Your task to perform on an android device: toggle notifications settings in the gmail app Image 0: 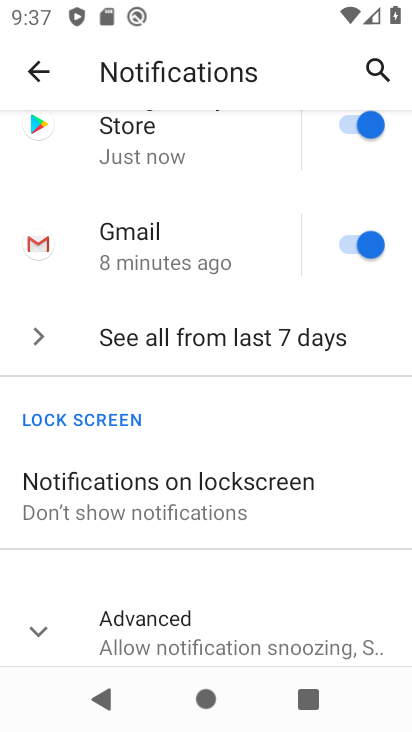
Step 0: press home button
Your task to perform on an android device: toggle notifications settings in the gmail app Image 1: 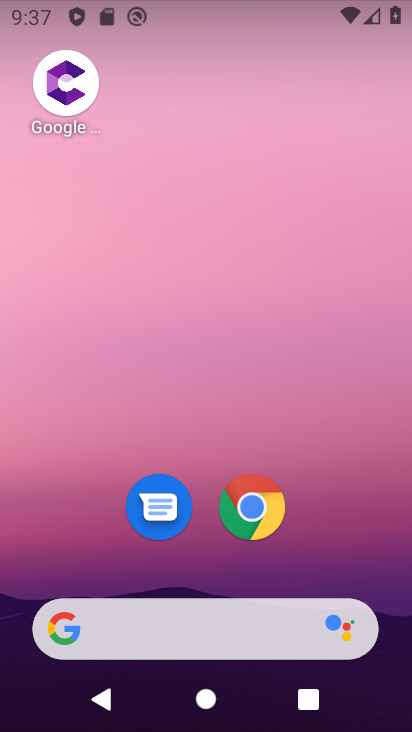
Step 1: drag from (325, 510) to (187, 146)
Your task to perform on an android device: toggle notifications settings in the gmail app Image 2: 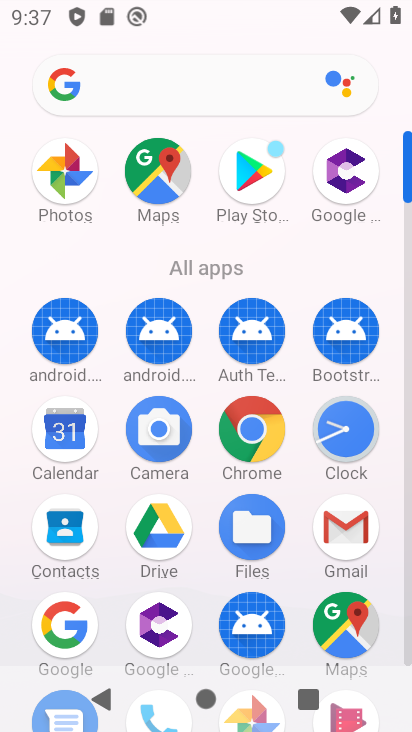
Step 2: click (337, 518)
Your task to perform on an android device: toggle notifications settings in the gmail app Image 3: 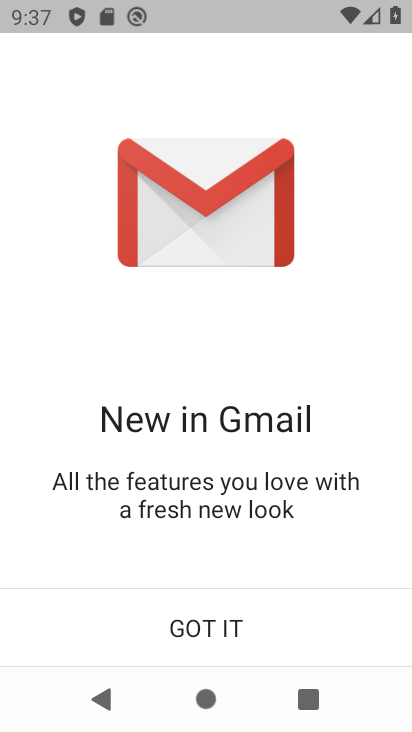
Step 3: click (198, 625)
Your task to perform on an android device: toggle notifications settings in the gmail app Image 4: 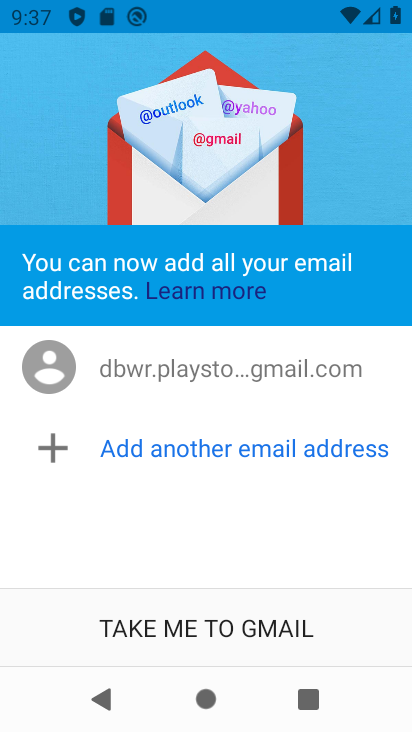
Step 4: click (198, 625)
Your task to perform on an android device: toggle notifications settings in the gmail app Image 5: 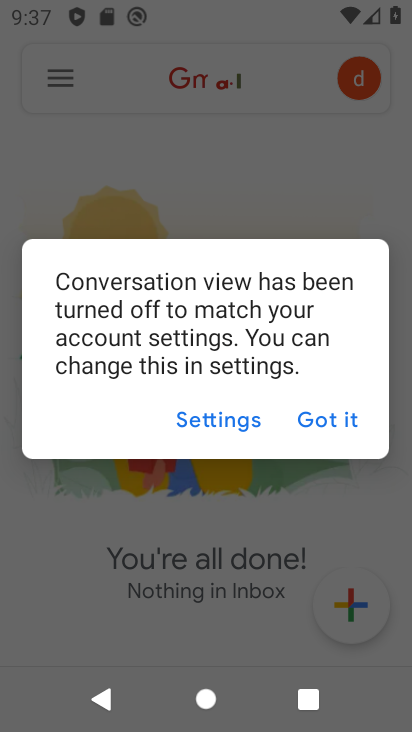
Step 5: click (336, 422)
Your task to perform on an android device: toggle notifications settings in the gmail app Image 6: 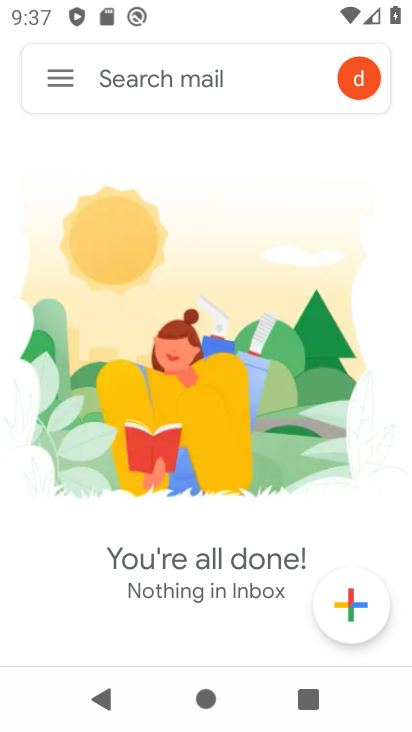
Step 6: click (47, 66)
Your task to perform on an android device: toggle notifications settings in the gmail app Image 7: 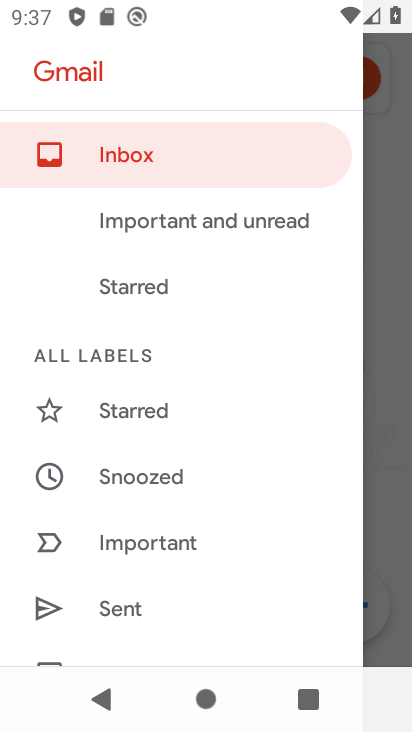
Step 7: drag from (237, 458) to (198, 199)
Your task to perform on an android device: toggle notifications settings in the gmail app Image 8: 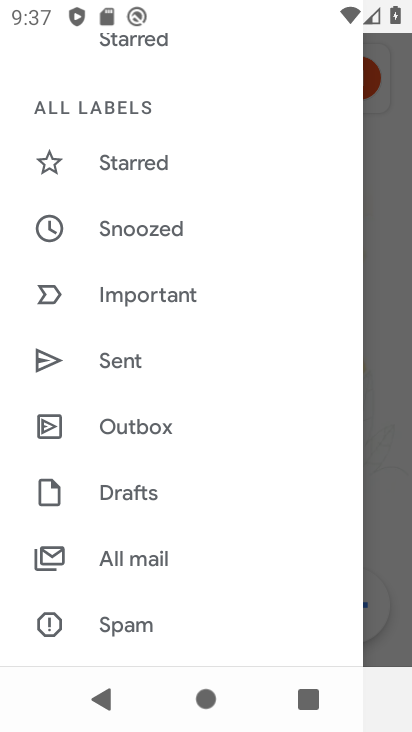
Step 8: drag from (185, 337) to (231, 159)
Your task to perform on an android device: toggle notifications settings in the gmail app Image 9: 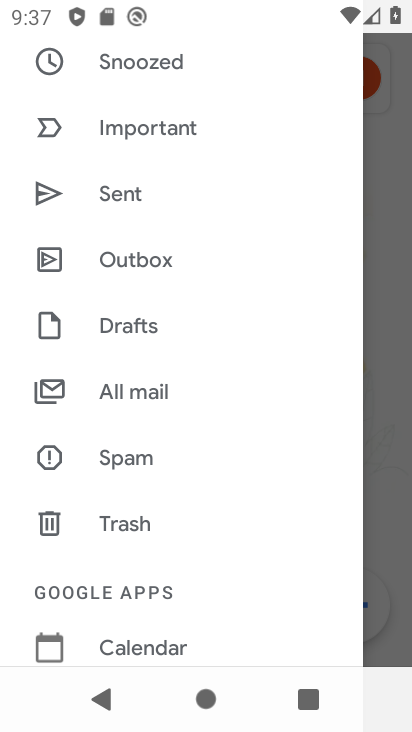
Step 9: drag from (224, 444) to (206, 165)
Your task to perform on an android device: toggle notifications settings in the gmail app Image 10: 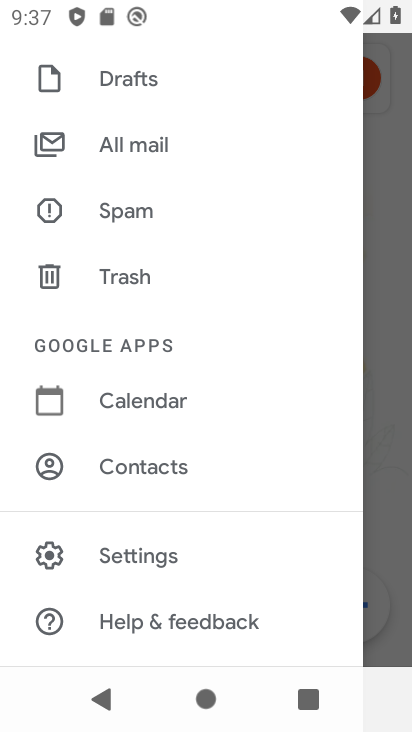
Step 10: click (135, 554)
Your task to perform on an android device: toggle notifications settings in the gmail app Image 11: 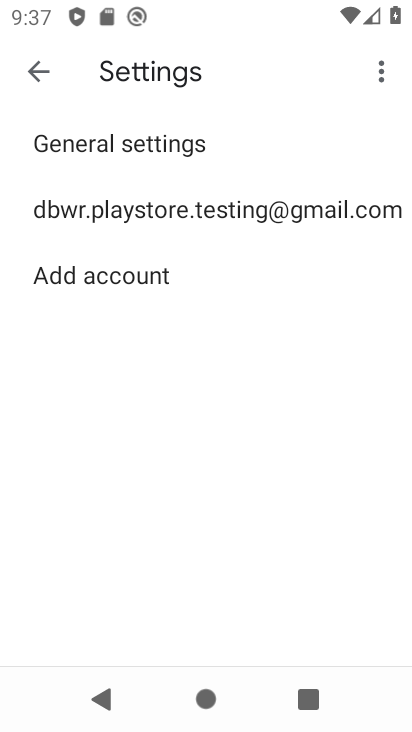
Step 11: click (115, 144)
Your task to perform on an android device: toggle notifications settings in the gmail app Image 12: 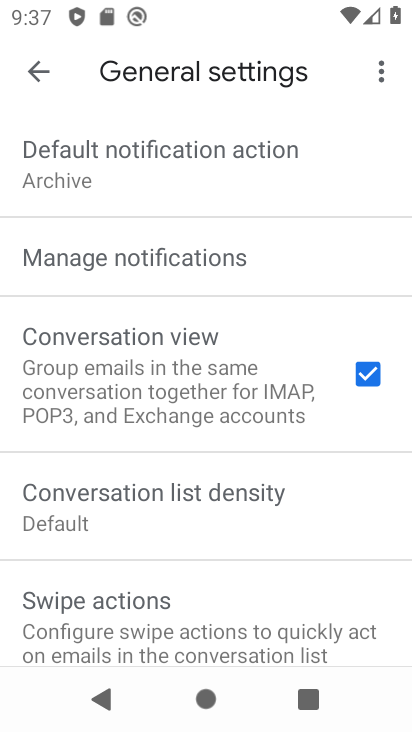
Step 12: click (126, 259)
Your task to perform on an android device: toggle notifications settings in the gmail app Image 13: 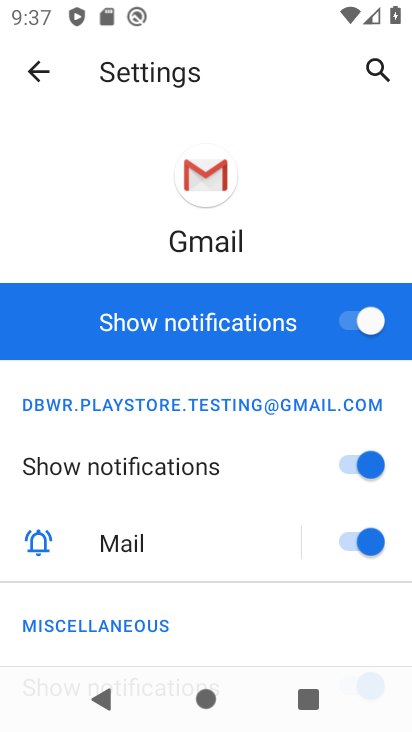
Step 13: click (375, 319)
Your task to perform on an android device: toggle notifications settings in the gmail app Image 14: 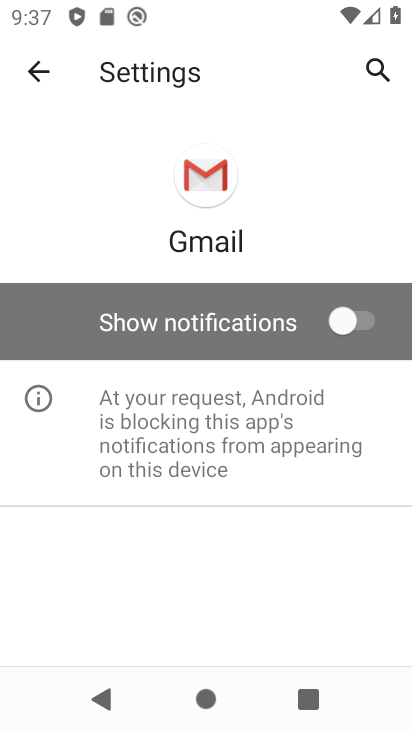
Step 14: task complete